Your task to perform on an android device: Open Wikipedia Image 0: 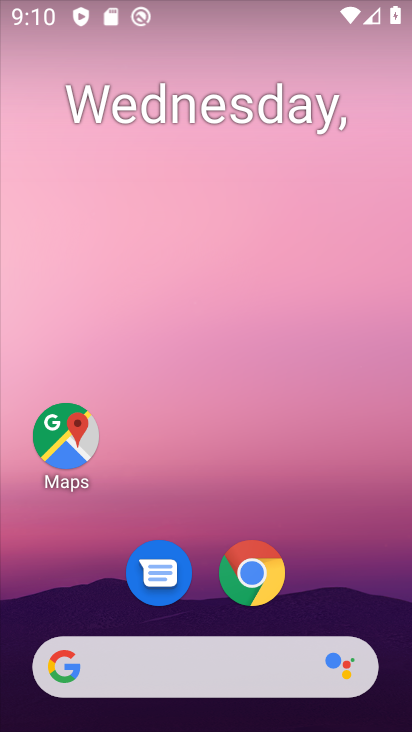
Step 0: click (247, 575)
Your task to perform on an android device: Open Wikipedia Image 1: 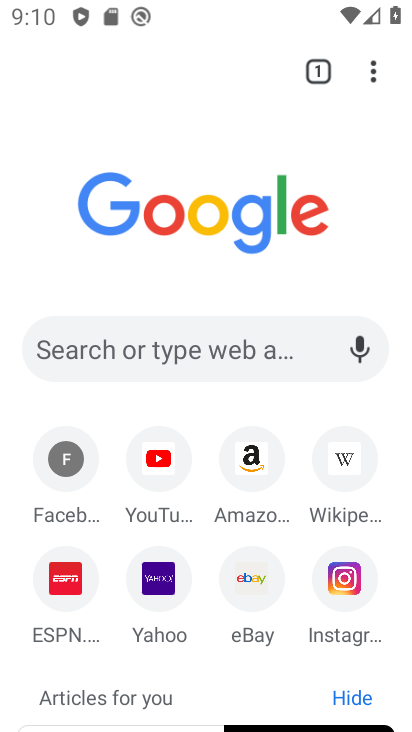
Step 1: click (356, 464)
Your task to perform on an android device: Open Wikipedia Image 2: 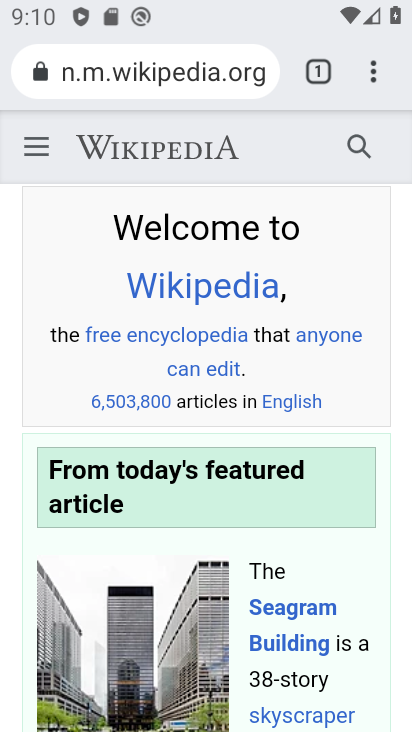
Step 2: task complete